Your task to perform on an android device: Go to location settings Image 0: 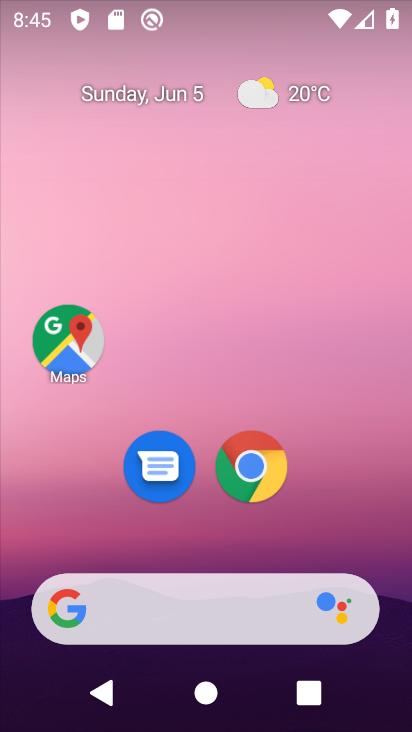
Step 0: drag from (215, 534) to (186, 220)
Your task to perform on an android device: Go to location settings Image 1: 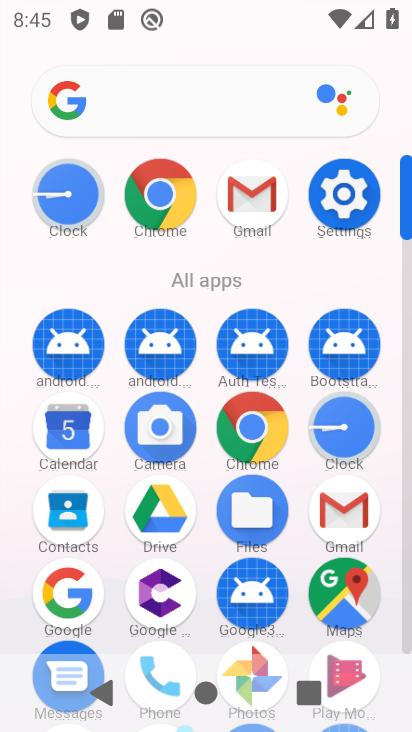
Step 1: click (345, 206)
Your task to perform on an android device: Go to location settings Image 2: 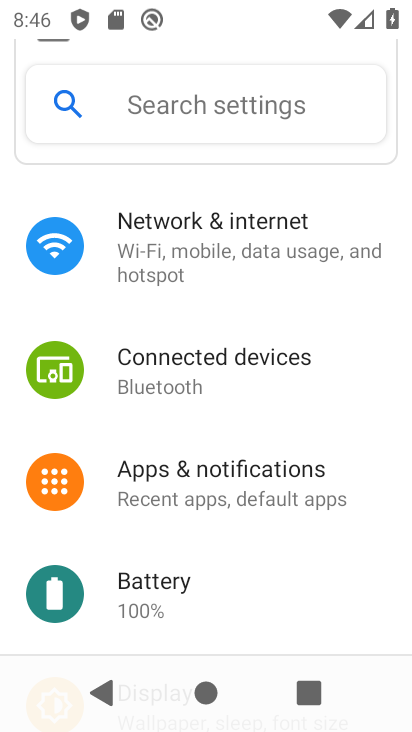
Step 2: drag from (144, 537) to (101, 289)
Your task to perform on an android device: Go to location settings Image 3: 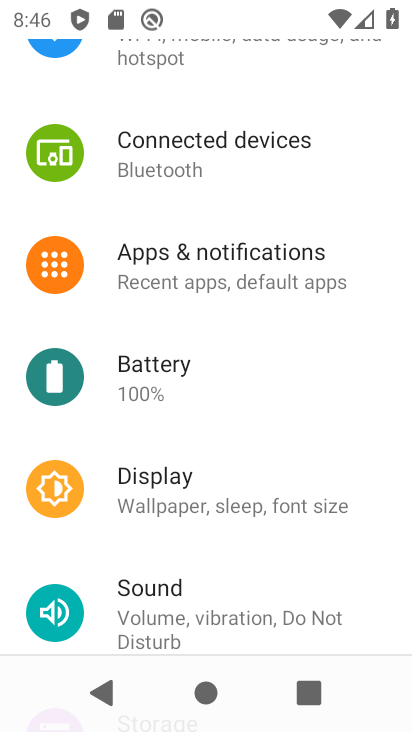
Step 3: drag from (131, 600) to (139, 249)
Your task to perform on an android device: Go to location settings Image 4: 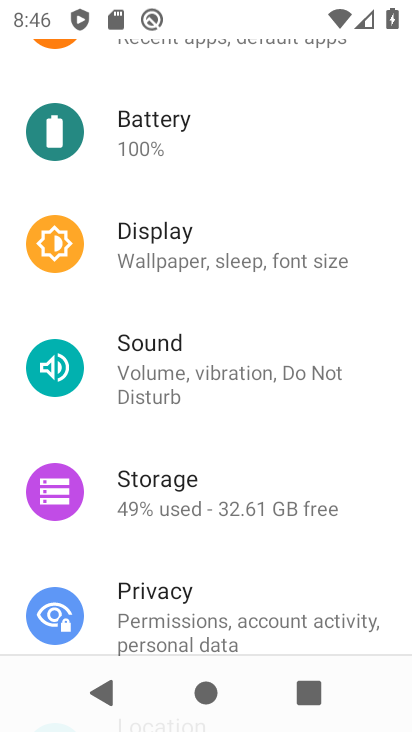
Step 4: drag from (185, 474) to (178, 194)
Your task to perform on an android device: Go to location settings Image 5: 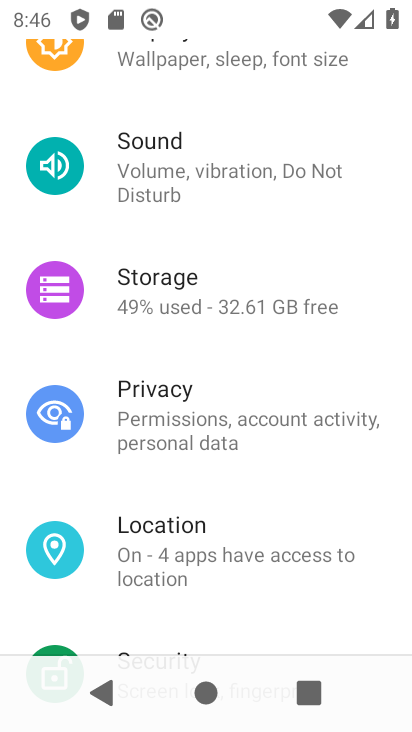
Step 5: click (190, 576)
Your task to perform on an android device: Go to location settings Image 6: 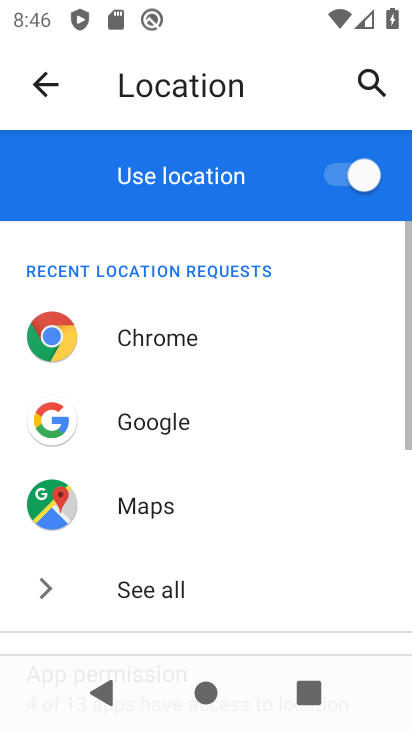
Step 6: task complete